Your task to perform on an android device: open app "Duolingo: language lessons" (install if not already installed) and enter user name: "omens@gmail.com" and password: "casks" Image 0: 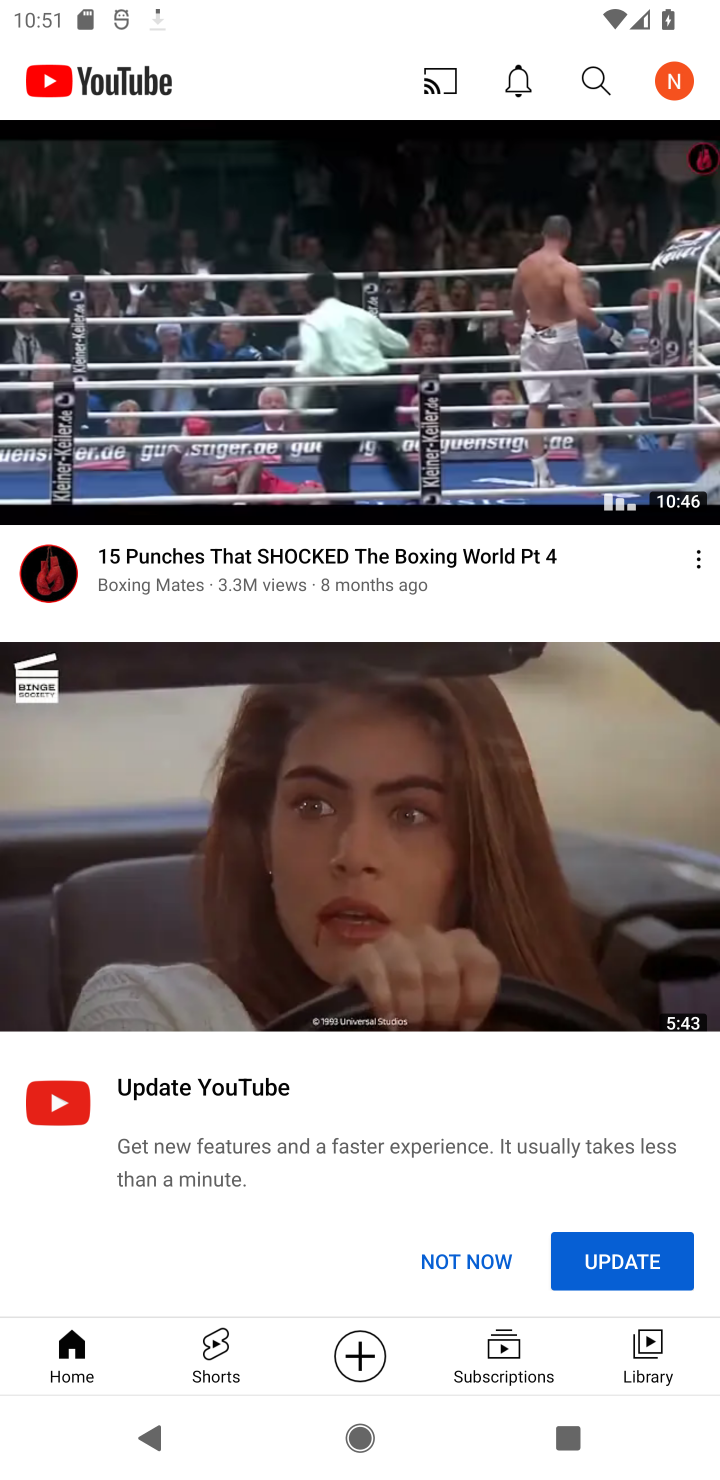
Step 0: press home button
Your task to perform on an android device: open app "Duolingo: language lessons" (install if not already installed) and enter user name: "omens@gmail.com" and password: "casks" Image 1: 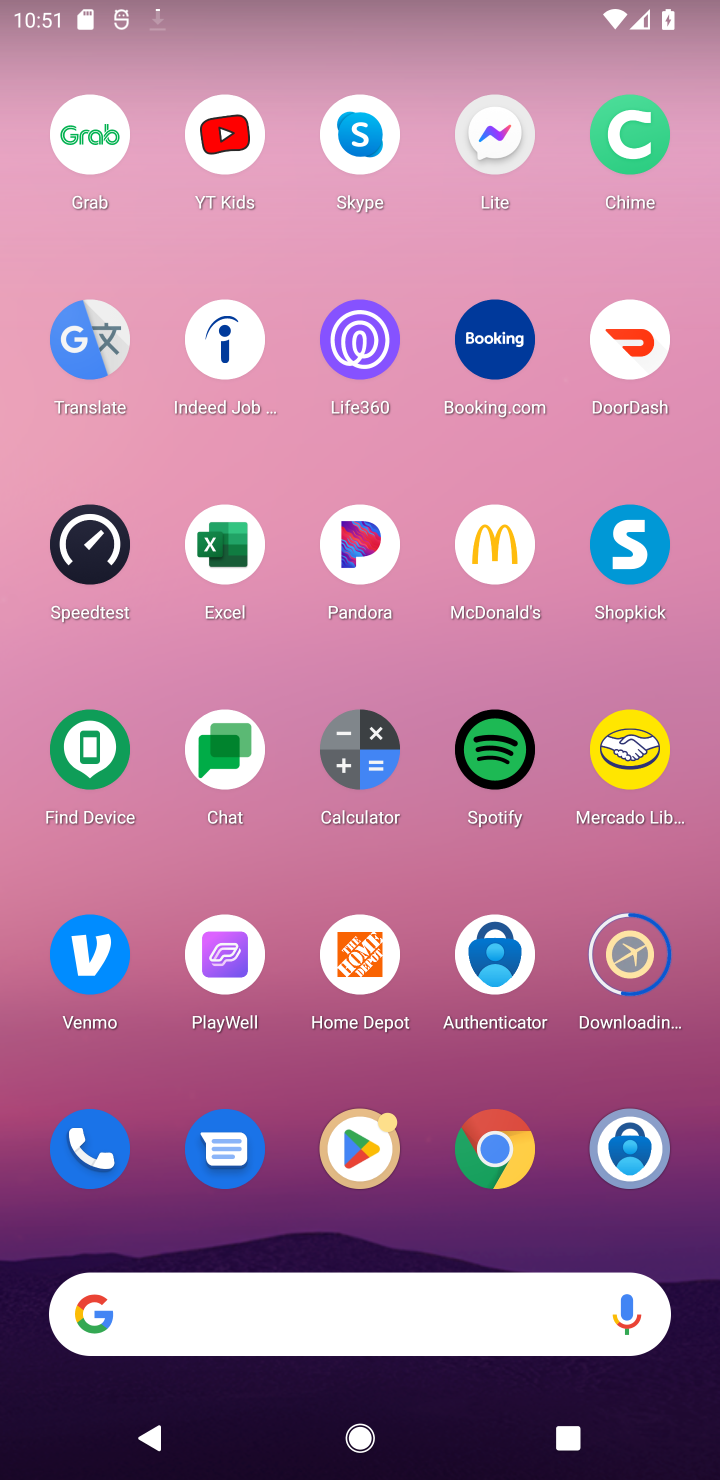
Step 1: click (345, 1178)
Your task to perform on an android device: open app "Duolingo: language lessons" (install if not already installed) and enter user name: "omens@gmail.com" and password: "casks" Image 2: 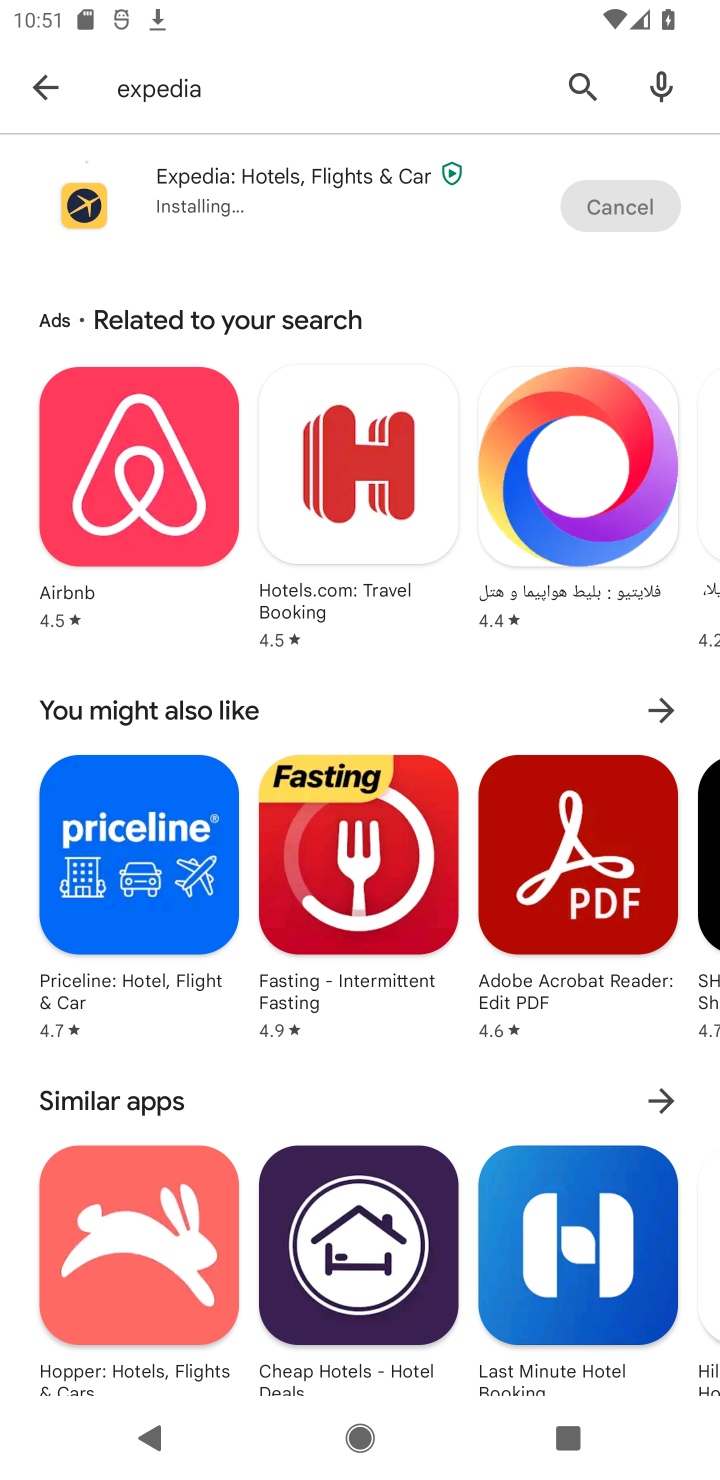
Step 2: click (597, 80)
Your task to perform on an android device: open app "Duolingo: language lessons" (install if not already installed) and enter user name: "omens@gmail.com" and password: "casks" Image 3: 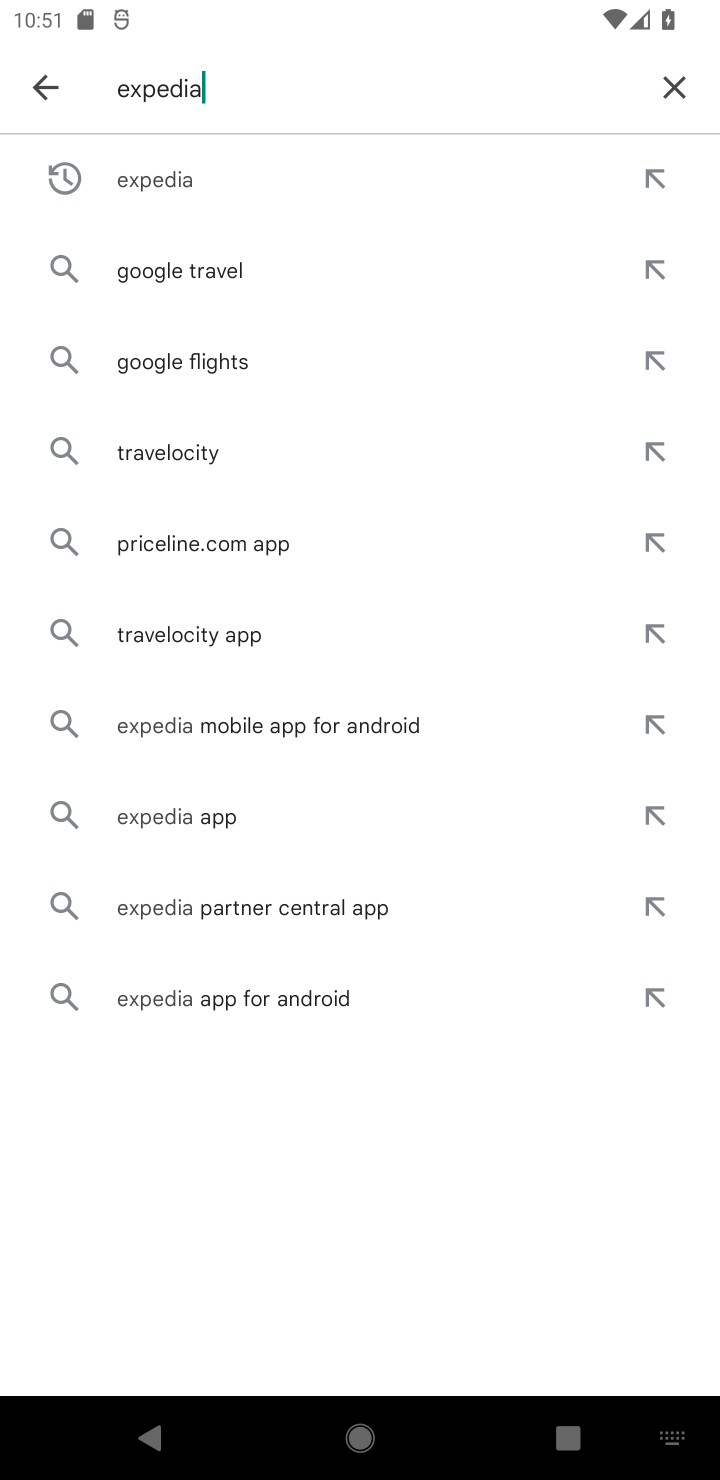
Step 3: click (686, 80)
Your task to perform on an android device: open app "Duolingo: language lessons" (install if not already installed) and enter user name: "omens@gmail.com" and password: "casks" Image 4: 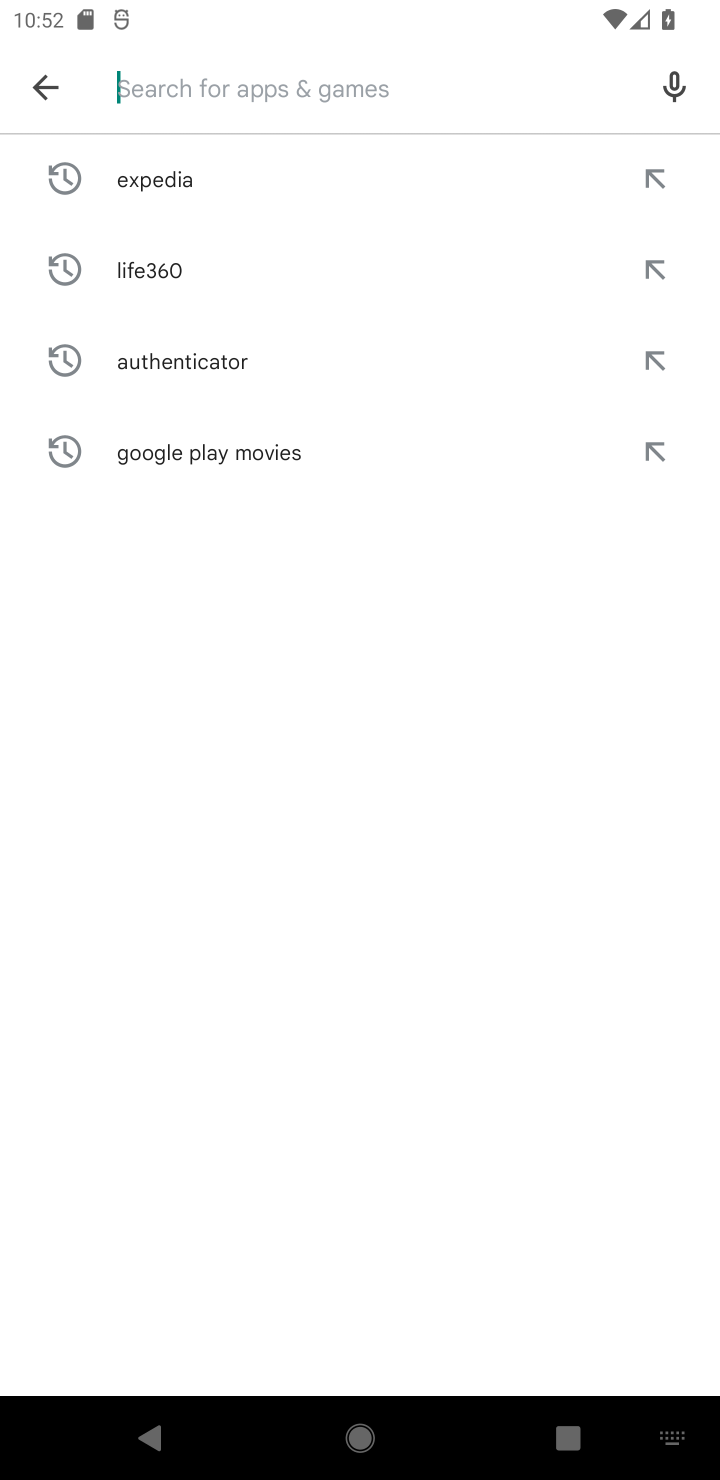
Step 4: type "duolingoo"
Your task to perform on an android device: open app "Duolingo: language lessons" (install if not already installed) and enter user name: "omens@gmail.com" and password: "casks" Image 5: 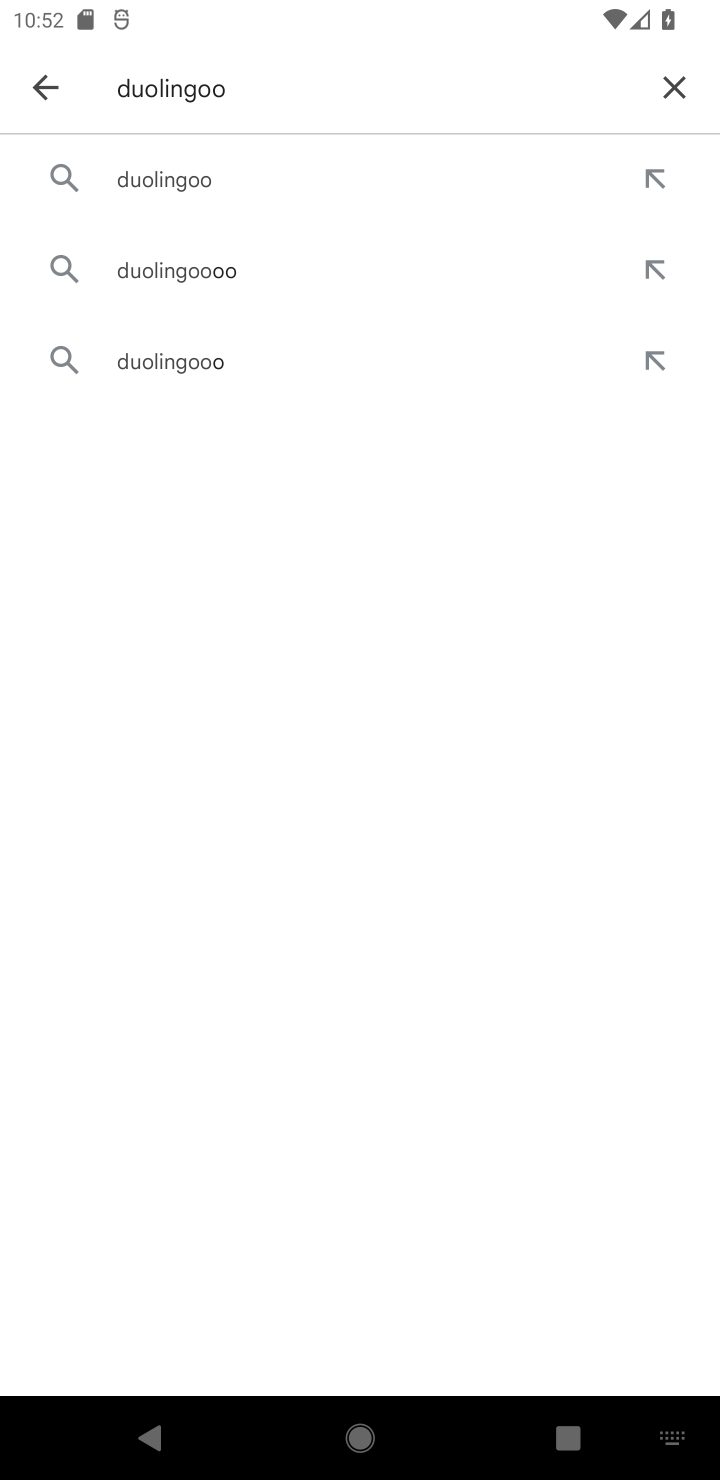
Step 5: click (322, 202)
Your task to perform on an android device: open app "Duolingo: language lessons" (install if not already installed) and enter user name: "omens@gmail.com" and password: "casks" Image 6: 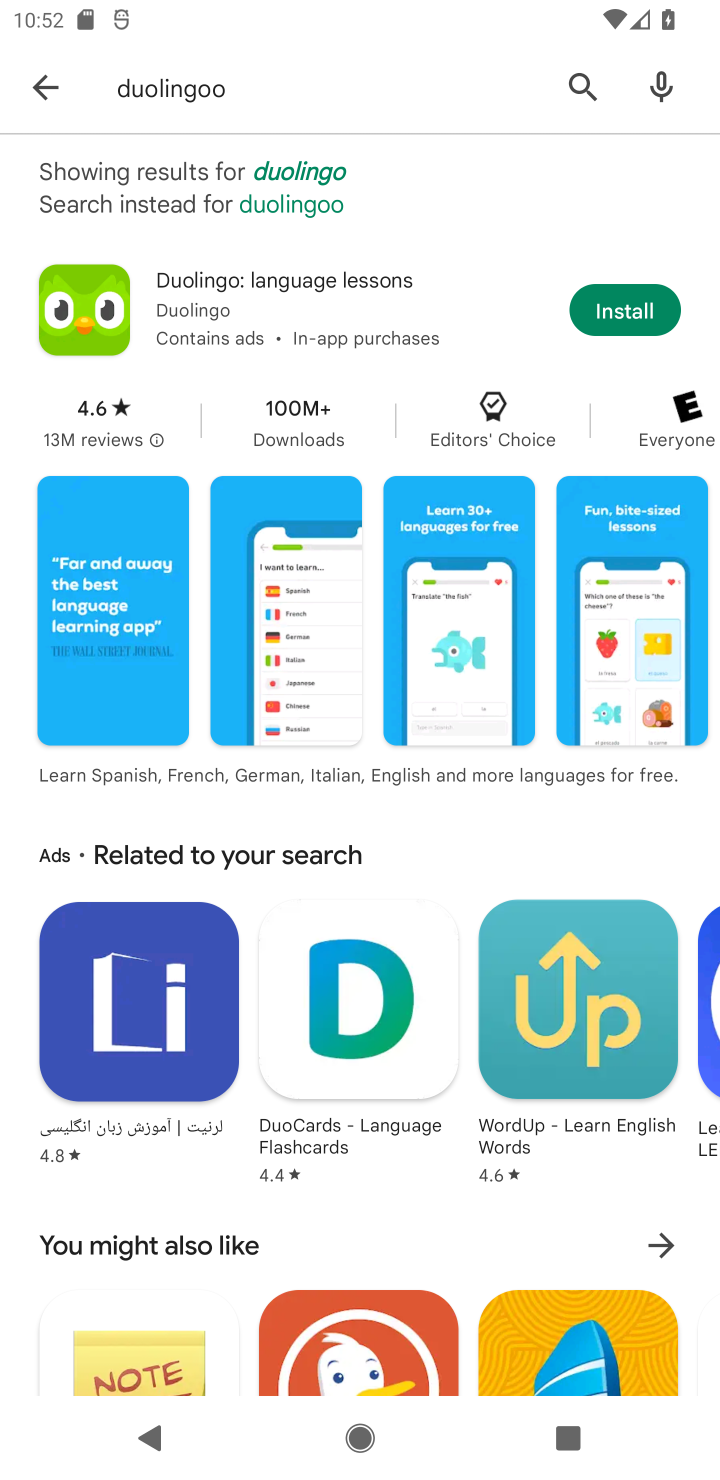
Step 6: click (665, 321)
Your task to perform on an android device: open app "Duolingo: language lessons" (install if not already installed) and enter user name: "omens@gmail.com" and password: "casks" Image 7: 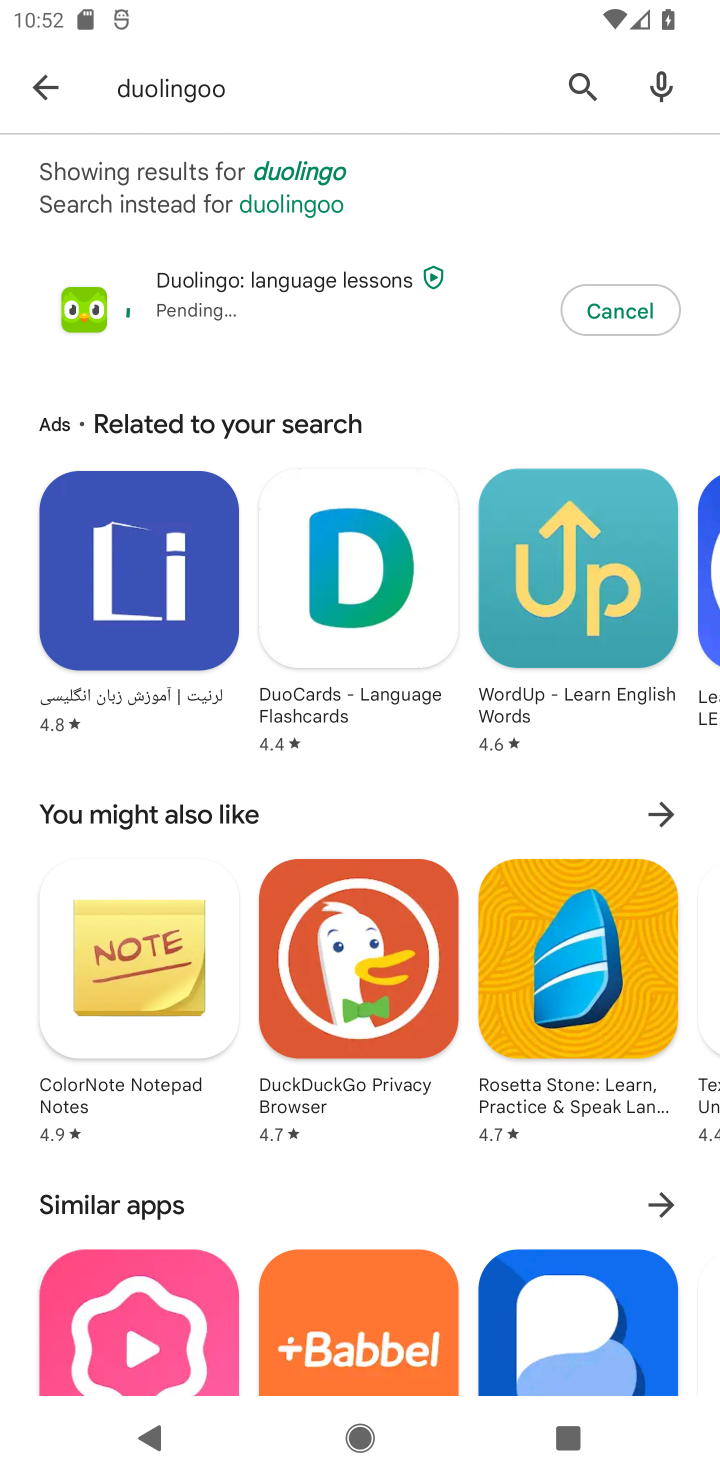
Step 7: task complete